Your task to perform on an android device: Open Youtube and go to "Your channel" Image 0: 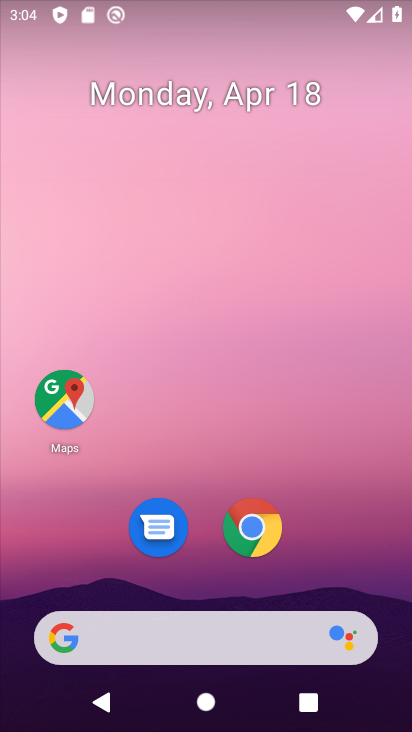
Step 0: drag from (215, 622) to (186, 85)
Your task to perform on an android device: Open Youtube and go to "Your channel" Image 1: 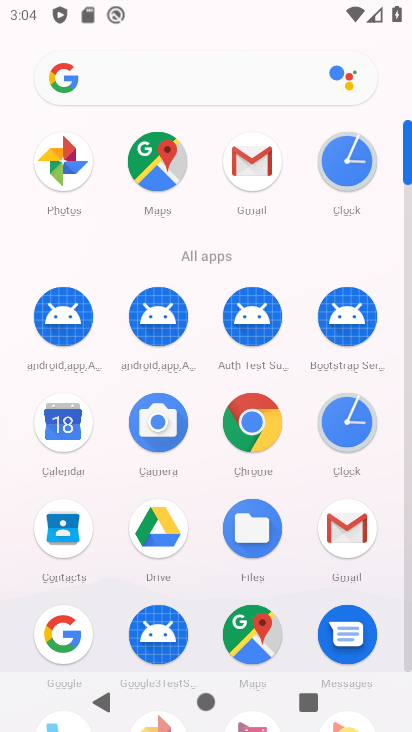
Step 1: drag from (288, 601) to (241, 135)
Your task to perform on an android device: Open Youtube and go to "Your channel" Image 2: 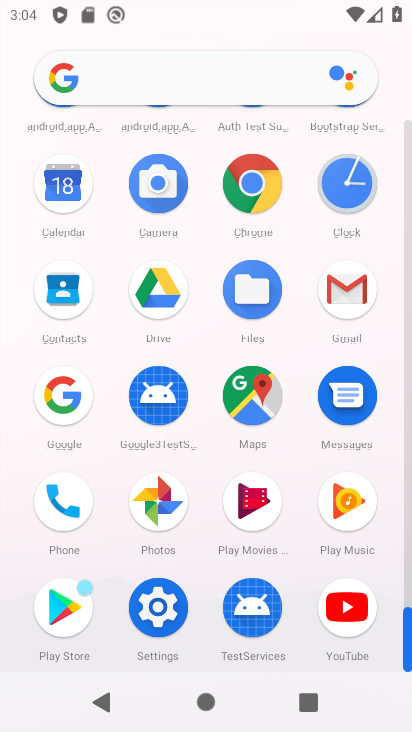
Step 2: click (344, 600)
Your task to perform on an android device: Open Youtube and go to "Your channel" Image 3: 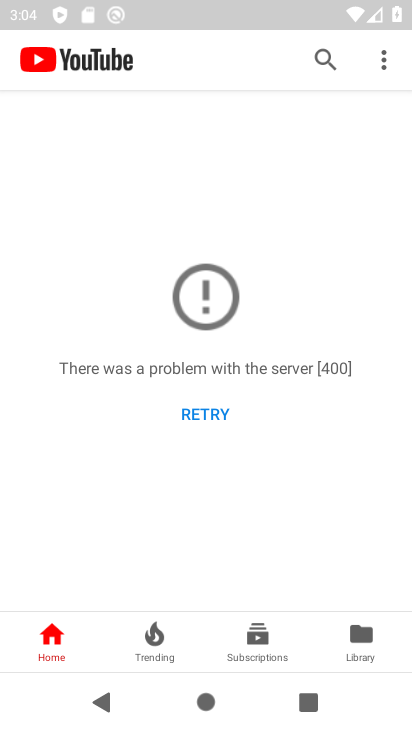
Step 3: click (352, 627)
Your task to perform on an android device: Open Youtube and go to "Your channel" Image 4: 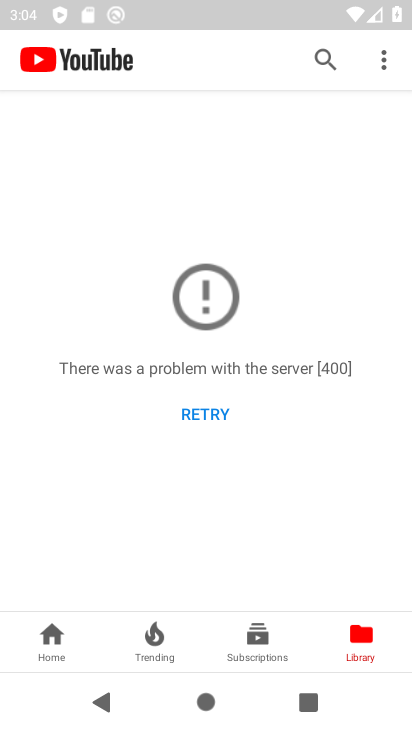
Step 4: click (379, 74)
Your task to perform on an android device: Open Youtube and go to "Your channel" Image 5: 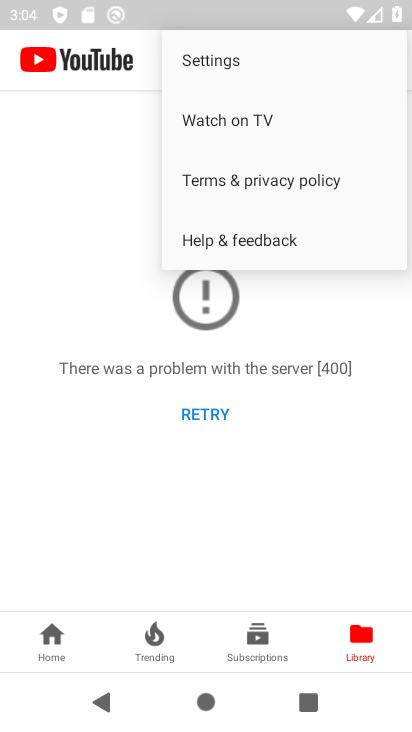
Step 5: click (250, 71)
Your task to perform on an android device: Open Youtube and go to "Your channel" Image 6: 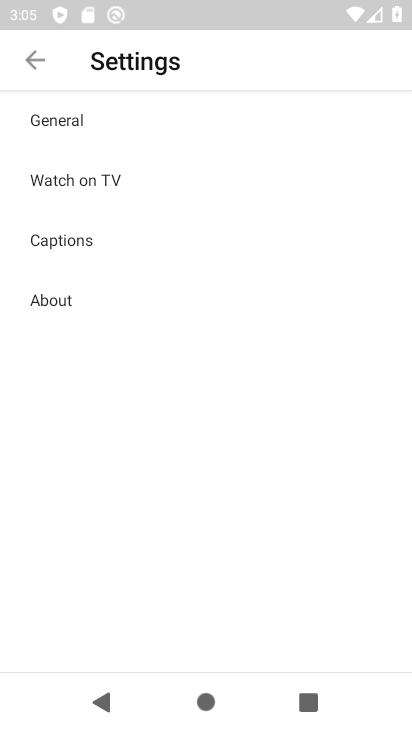
Step 6: task complete